Your task to perform on an android device: set an alarm Image 0: 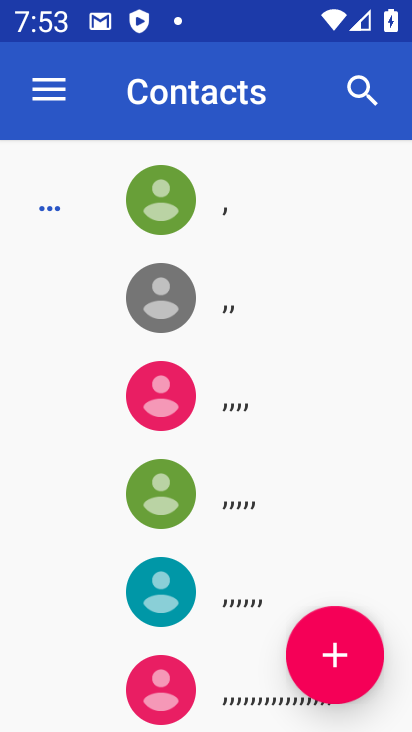
Step 0: press home button
Your task to perform on an android device: set an alarm Image 1: 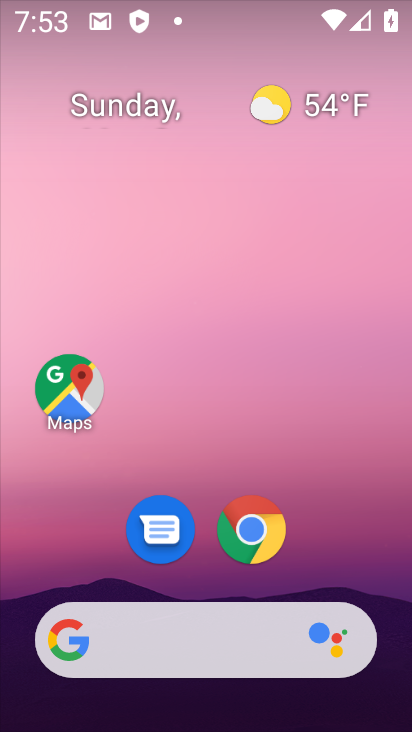
Step 1: drag from (259, 554) to (266, 5)
Your task to perform on an android device: set an alarm Image 2: 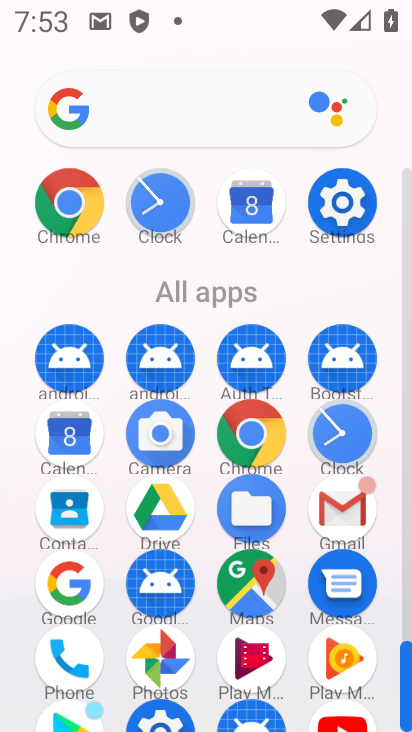
Step 2: click (336, 440)
Your task to perform on an android device: set an alarm Image 3: 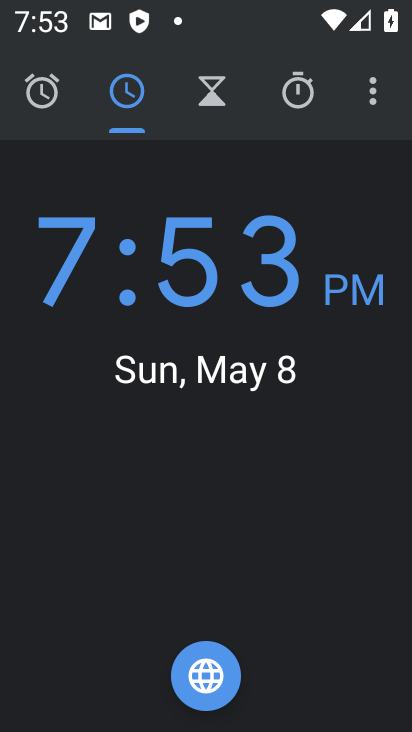
Step 3: click (55, 116)
Your task to perform on an android device: set an alarm Image 4: 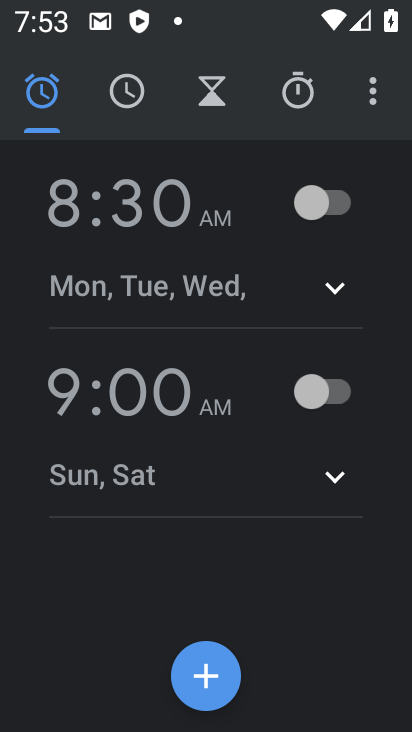
Step 4: click (339, 193)
Your task to perform on an android device: set an alarm Image 5: 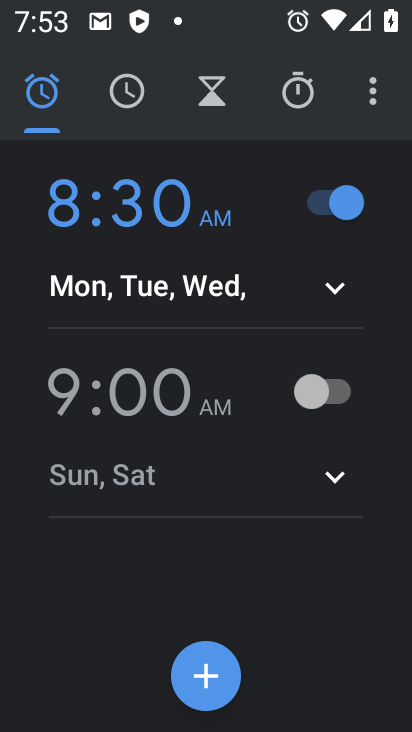
Step 5: task complete